Your task to perform on an android device: Open Google Maps and go to "Timeline" Image 0: 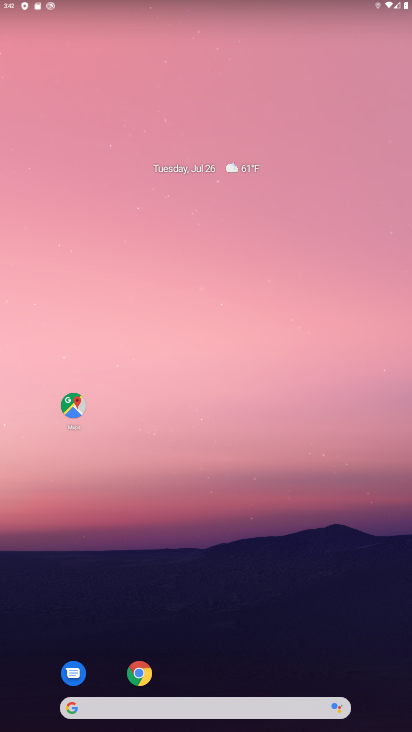
Step 0: press home button
Your task to perform on an android device: Open Google Maps and go to "Timeline" Image 1: 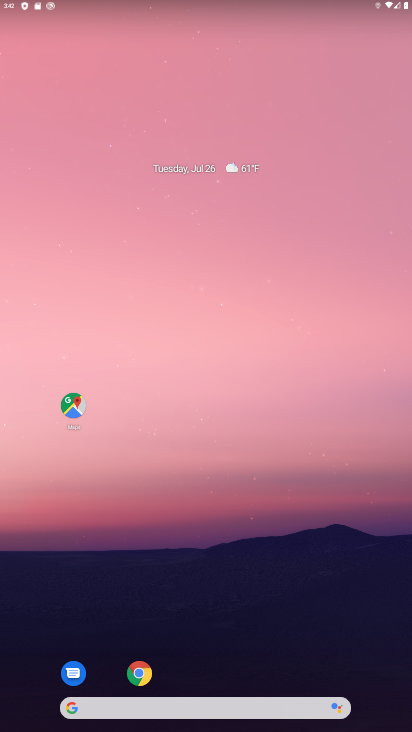
Step 1: click (73, 398)
Your task to perform on an android device: Open Google Maps and go to "Timeline" Image 2: 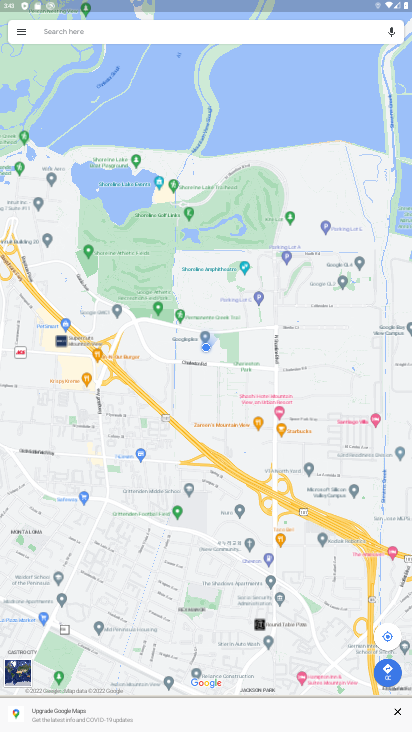
Step 2: click (16, 28)
Your task to perform on an android device: Open Google Maps and go to "Timeline" Image 3: 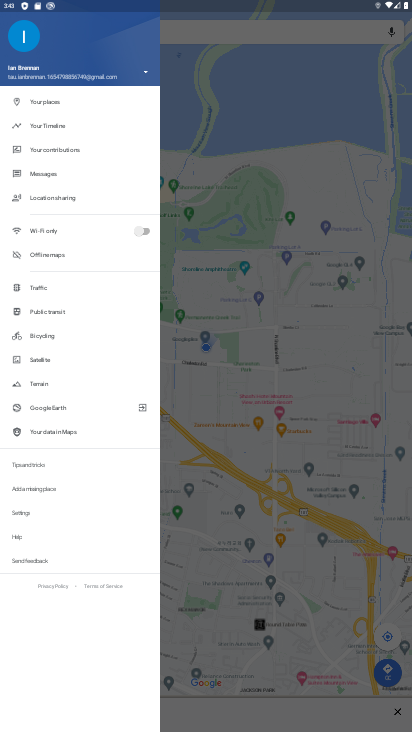
Step 3: click (46, 121)
Your task to perform on an android device: Open Google Maps and go to "Timeline" Image 4: 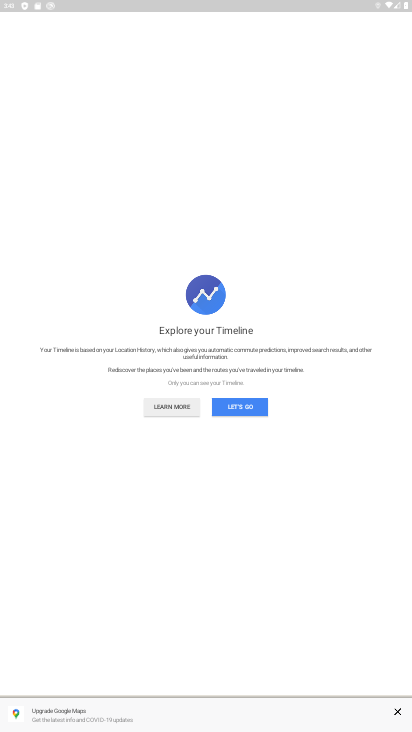
Step 4: click (238, 402)
Your task to perform on an android device: Open Google Maps and go to "Timeline" Image 5: 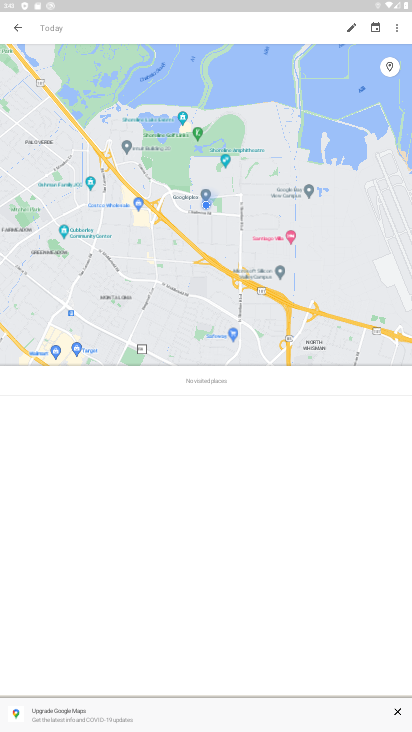
Step 5: task complete